Your task to perform on an android device: change the clock display to analog Image 0: 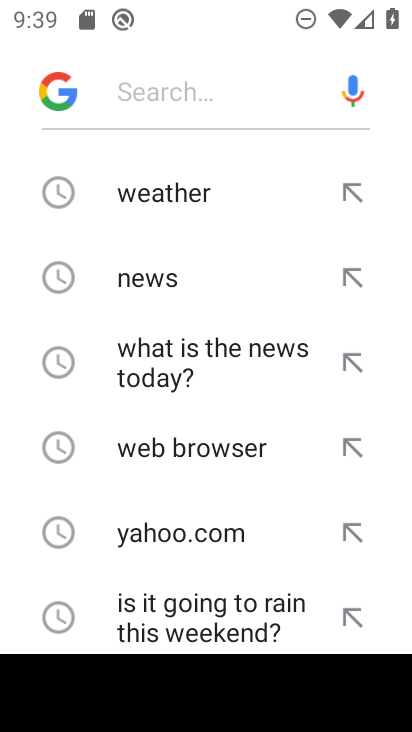
Step 0: press home button
Your task to perform on an android device: change the clock display to analog Image 1: 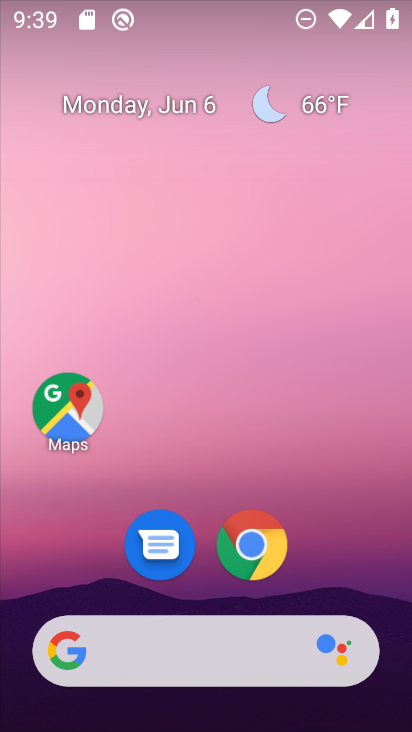
Step 1: click (278, 196)
Your task to perform on an android device: change the clock display to analog Image 2: 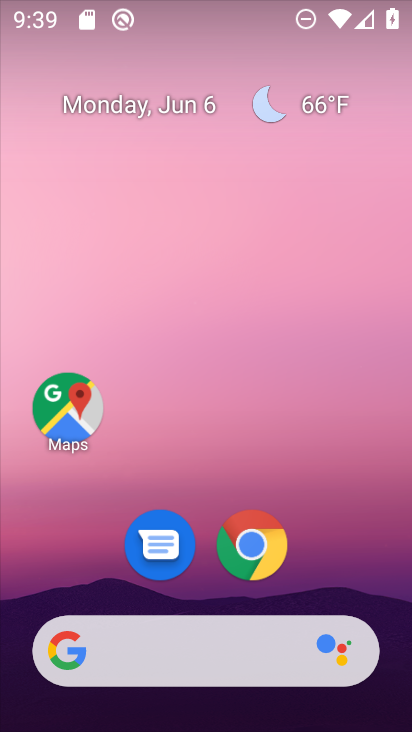
Step 2: drag from (187, 597) to (253, 174)
Your task to perform on an android device: change the clock display to analog Image 3: 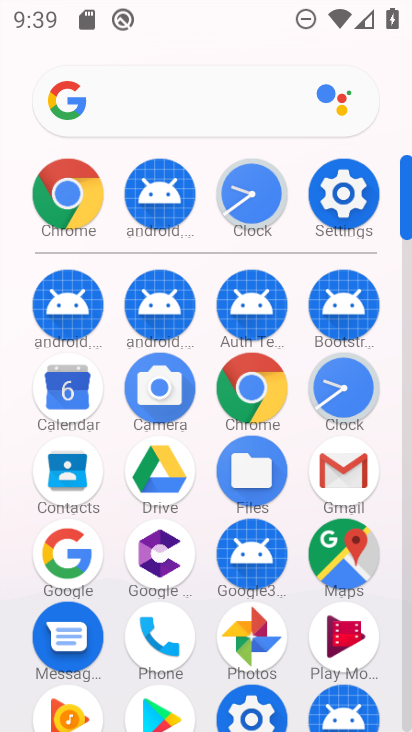
Step 3: click (337, 376)
Your task to perform on an android device: change the clock display to analog Image 4: 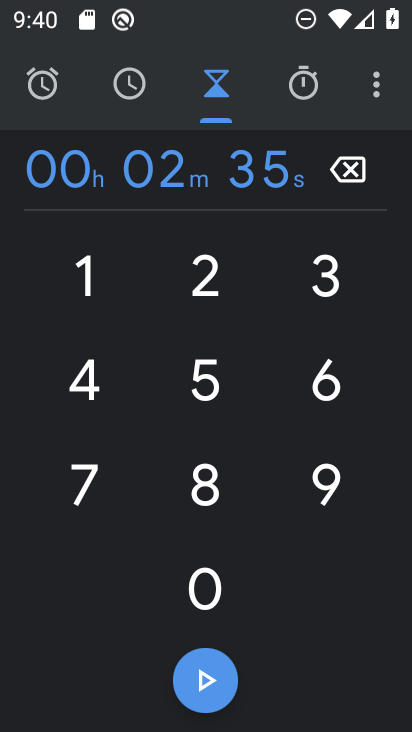
Step 4: click (380, 73)
Your task to perform on an android device: change the clock display to analog Image 5: 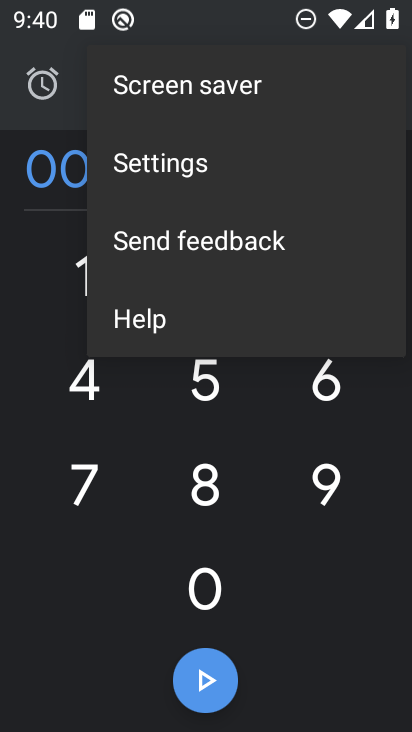
Step 5: click (190, 175)
Your task to perform on an android device: change the clock display to analog Image 6: 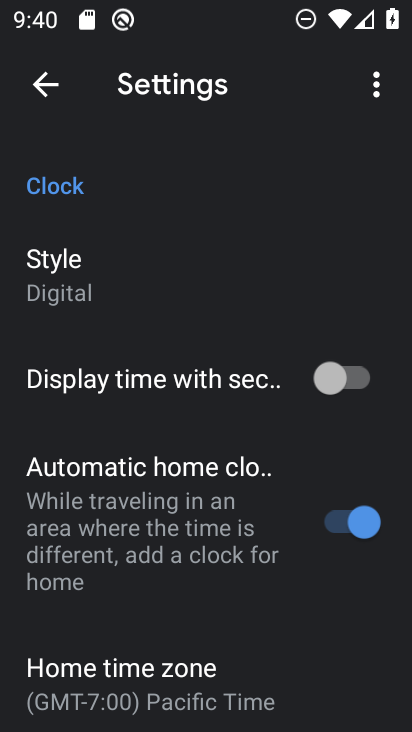
Step 6: click (91, 288)
Your task to perform on an android device: change the clock display to analog Image 7: 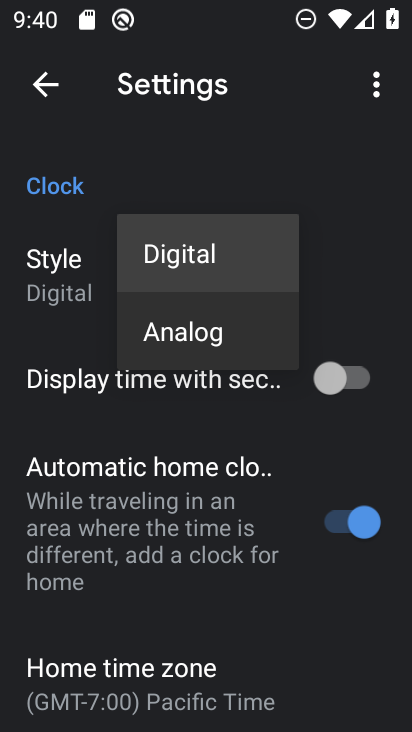
Step 7: click (76, 292)
Your task to perform on an android device: change the clock display to analog Image 8: 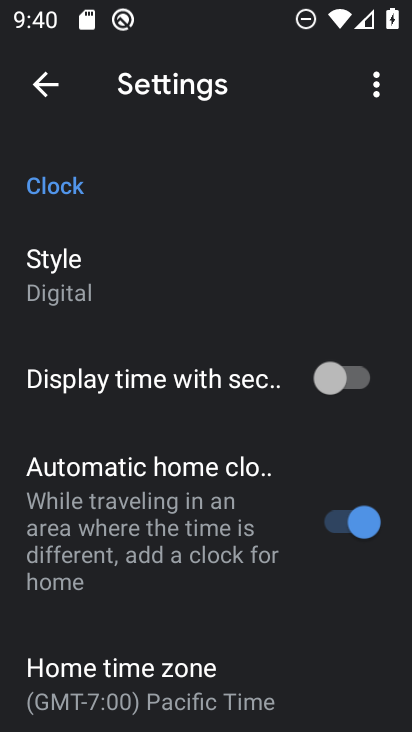
Step 8: click (199, 339)
Your task to perform on an android device: change the clock display to analog Image 9: 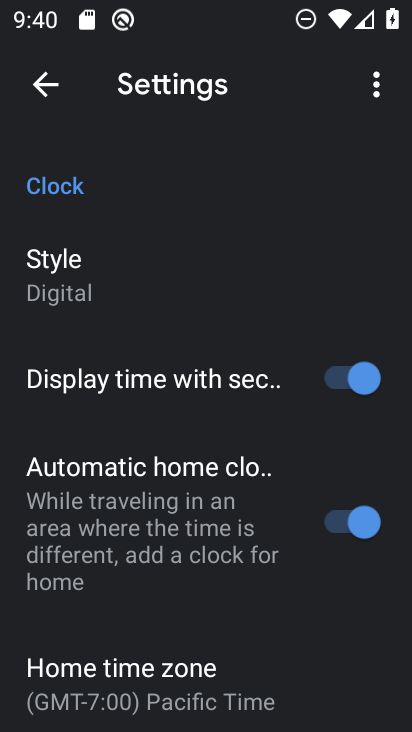
Step 9: click (52, 291)
Your task to perform on an android device: change the clock display to analog Image 10: 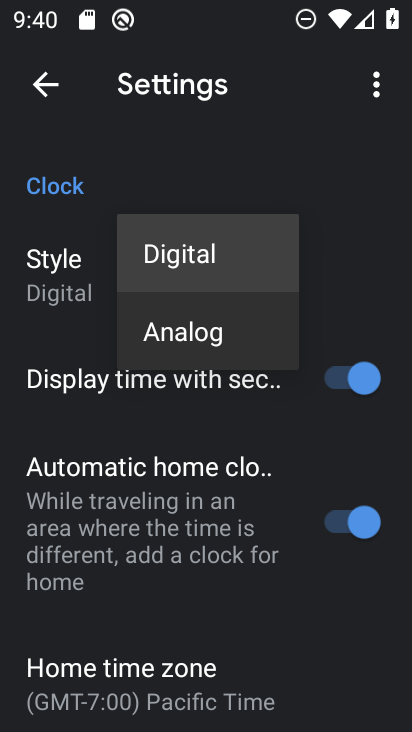
Step 10: click (196, 338)
Your task to perform on an android device: change the clock display to analog Image 11: 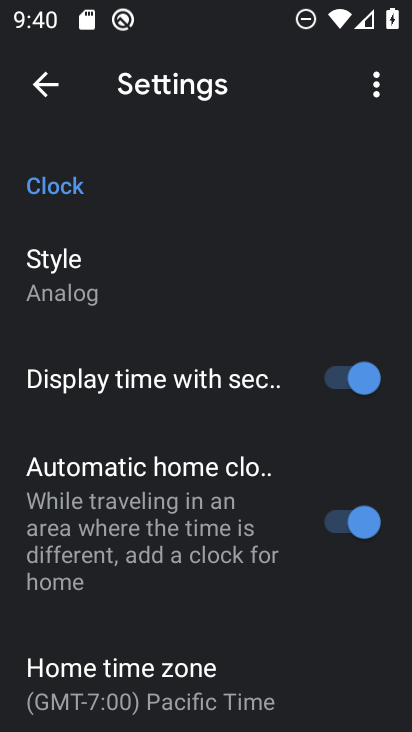
Step 11: task complete